Your task to perform on an android device: Go to Google Image 0: 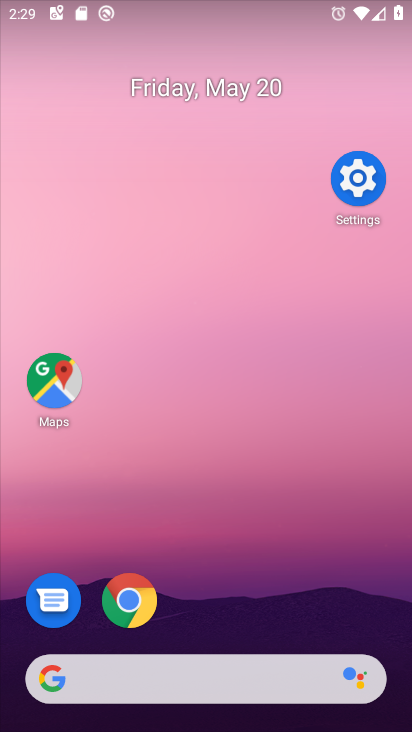
Step 0: click (160, 684)
Your task to perform on an android device: Go to Google Image 1: 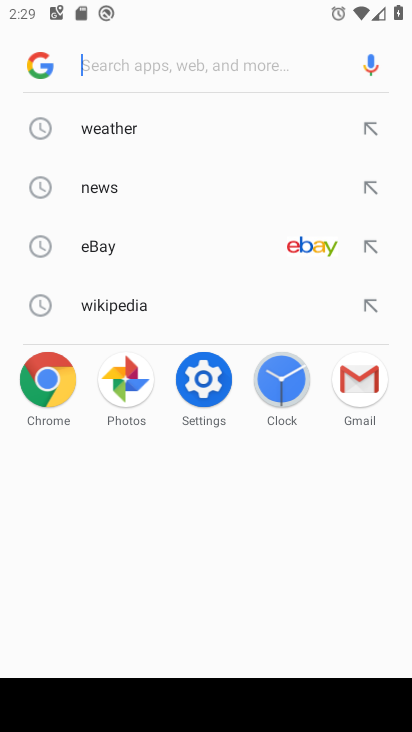
Step 1: click (44, 75)
Your task to perform on an android device: Go to Google Image 2: 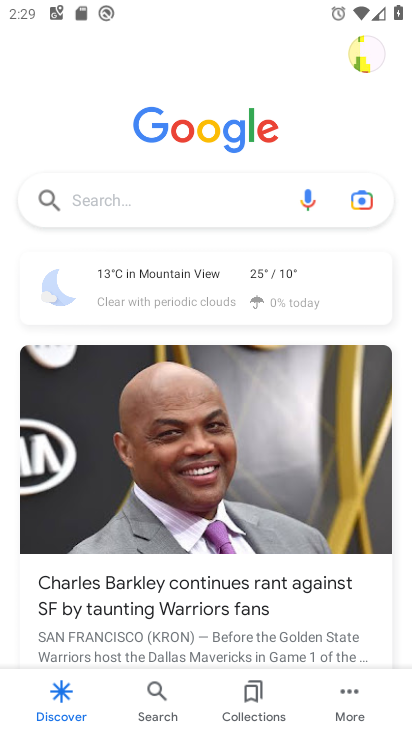
Step 2: task complete